Your task to perform on an android device: Go to eBay Image 0: 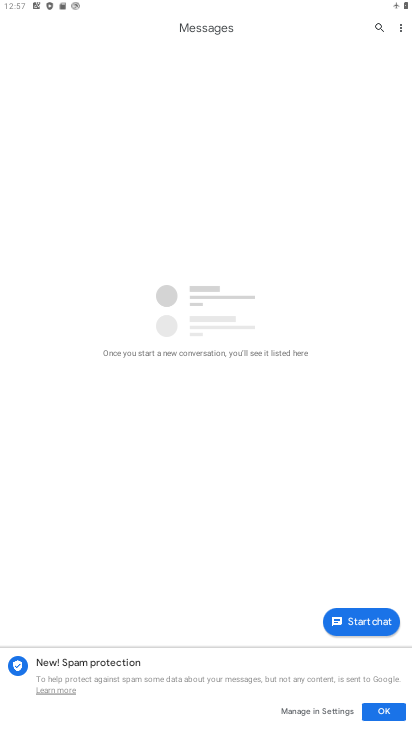
Step 0: press back button
Your task to perform on an android device: Go to eBay Image 1: 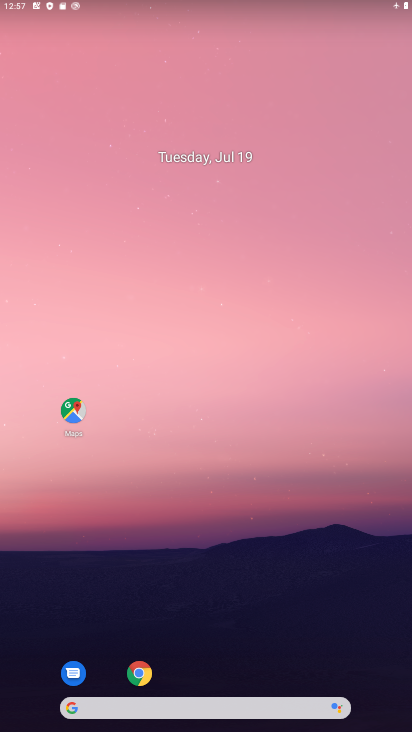
Step 1: press home button
Your task to perform on an android device: Go to eBay Image 2: 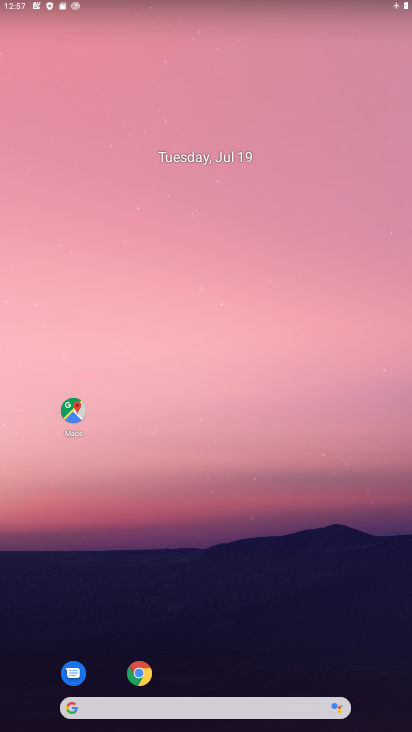
Step 2: drag from (223, 502) to (202, 406)
Your task to perform on an android device: Go to eBay Image 3: 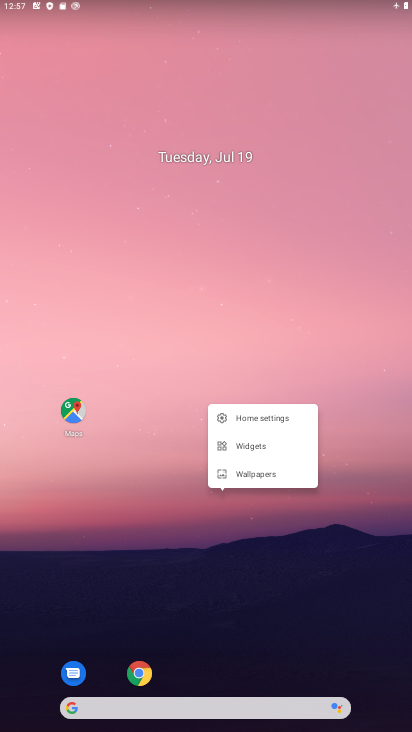
Step 3: drag from (264, 705) to (136, 230)
Your task to perform on an android device: Go to eBay Image 4: 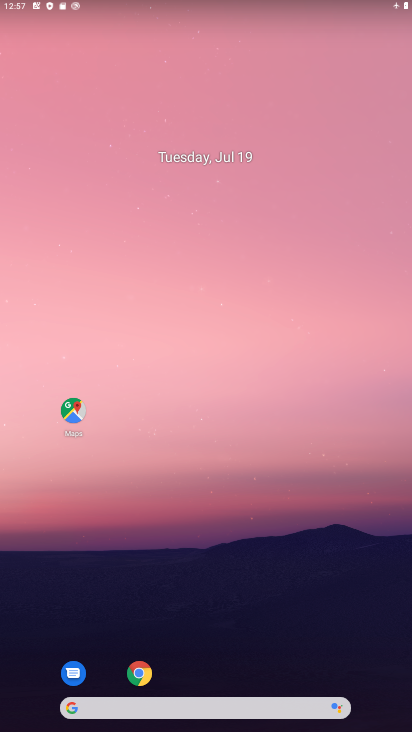
Step 4: drag from (231, 702) to (153, 297)
Your task to perform on an android device: Go to eBay Image 5: 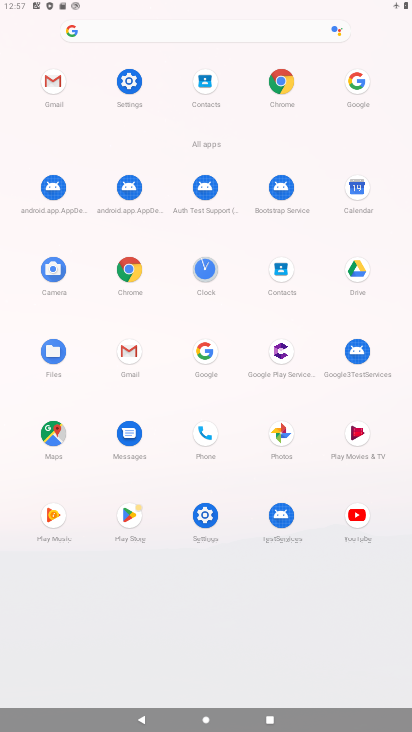
Step 5: drag from (232, 458) to (205, 285)
Your task to perform on an android device: Go to eBay Image 6: 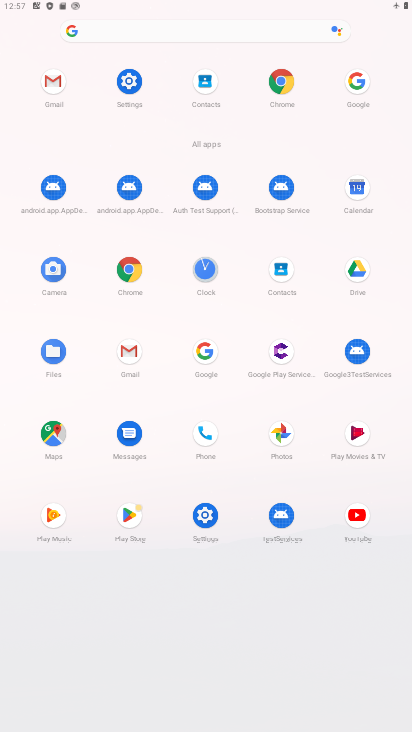
Step 6: click (274, 434)
Your task to perform on an android device: Go to eBay Image 7: 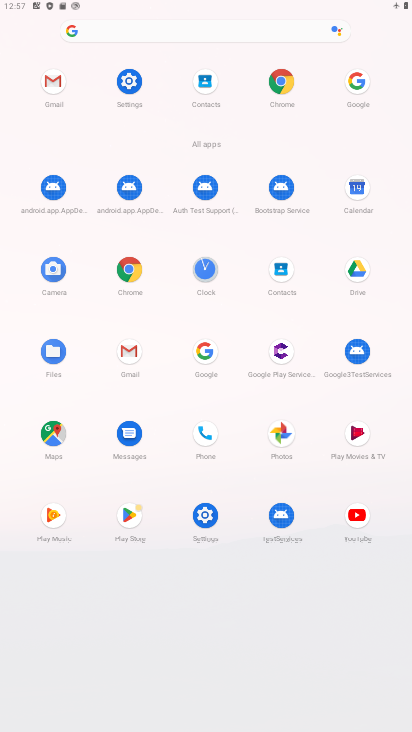
Step 7: click (278, 434)
Your task to perform on an android device: Go to eBay Image 8: 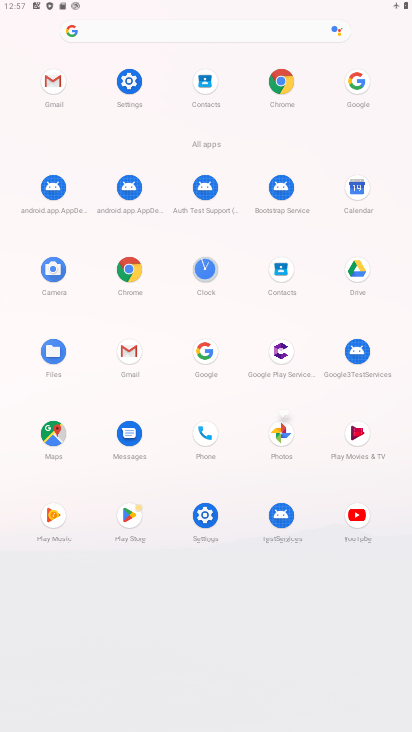
Step 8: click (279, 434)
Your task to perform on an android device: Go to eBay Image 9: 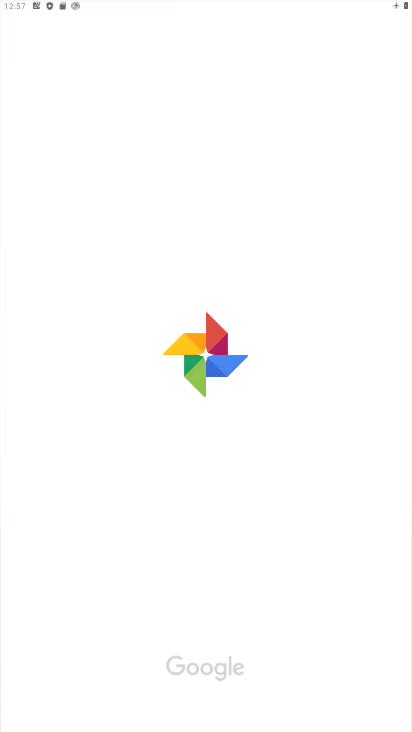
Step 9: click (279, 434)
Your task to perform on an android device: Go to eBay Image 10: 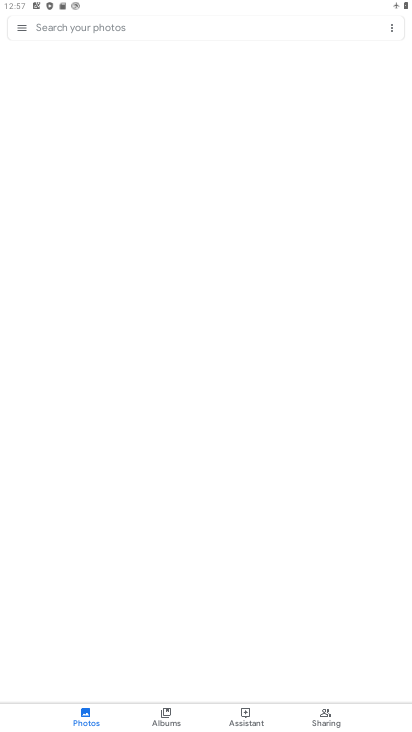
Step 10: click (279, 434)
Your task to perform on an android device: Go to eBay Image 11: 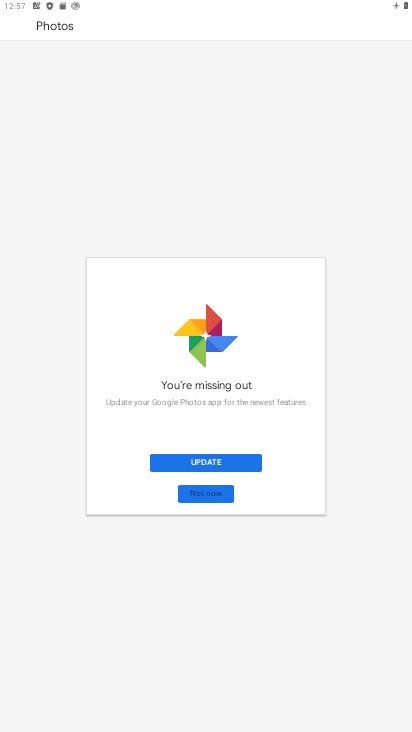
Step 11: click (214, 496)
Your task to perform on an android device: Go to eBay Image 12: 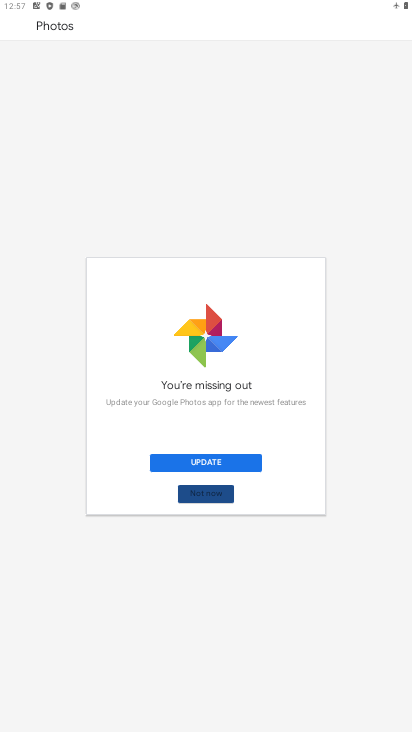
Step 12: click (214, 496)
Your task to perform on an android device: Go to eBay Image 13: 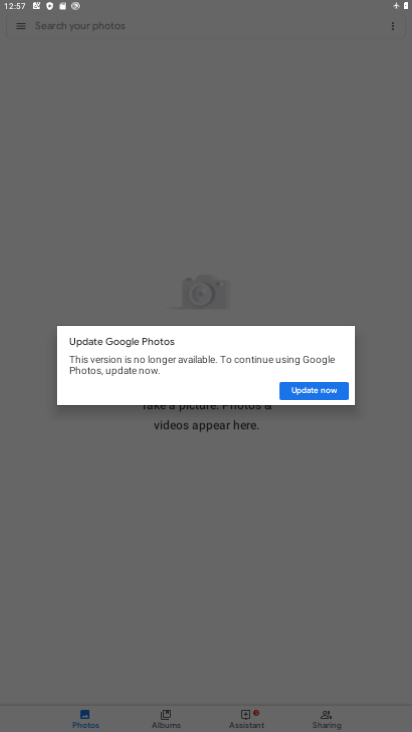
Step 13: click (214, 499)
Your task to perform on an android device: Go to eBay Image 14: 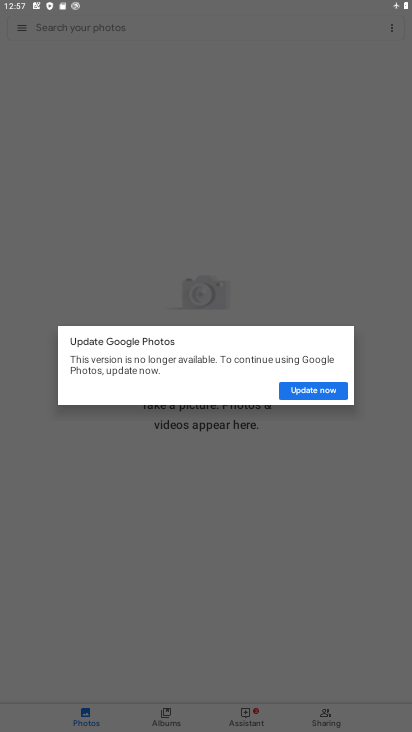
Step 14: click (119, 249)
Your task to perform on an android device: Go to eBay Image 15: 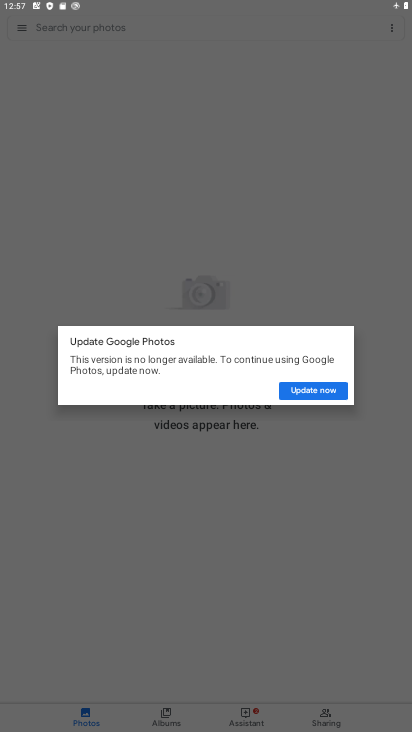
Step 15: click (223, 164)
Your task to perform on an android device: Go to eBay Image 16: 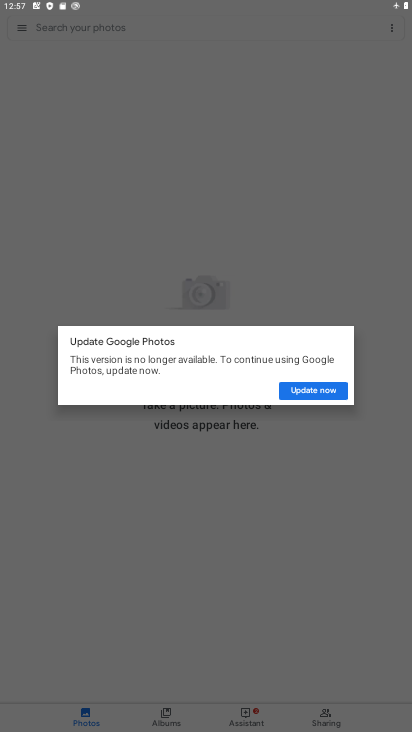
Step 16: press back button
Your task to perform on an android device: Go to eBay Image 17: 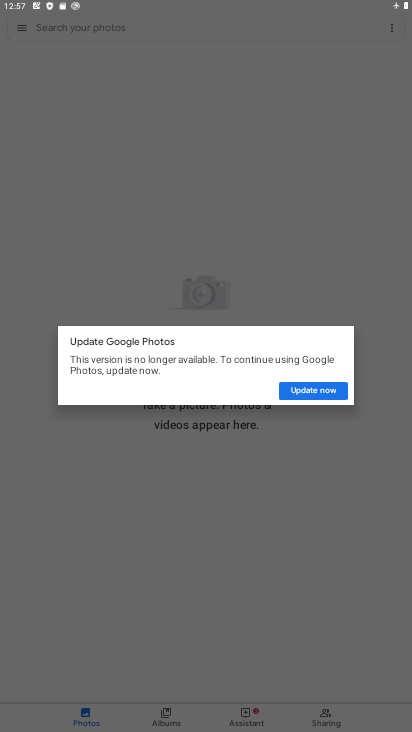
Step 17: press back button
Your task to perform on an android device: Go to eBay Image 18: 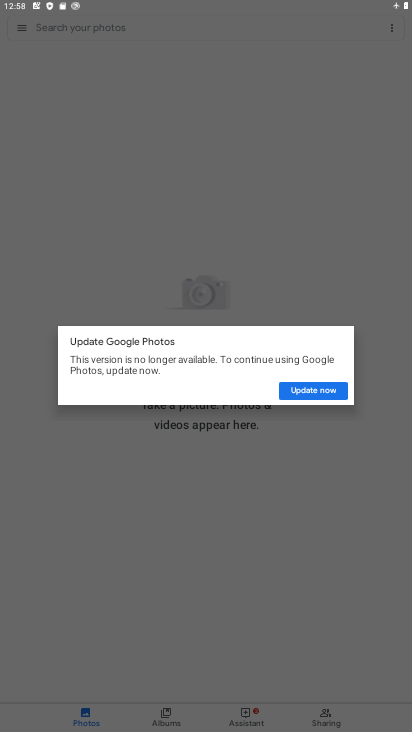
Step 18: click (322, 384)
Your task to perform on an android device: Go to eBay Image 19: 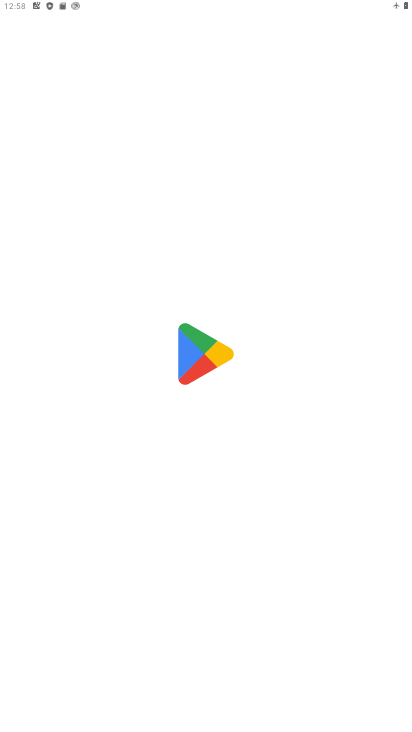
Step 19: press back button
Your task to perform on an android device: Go to eBay Image 20: 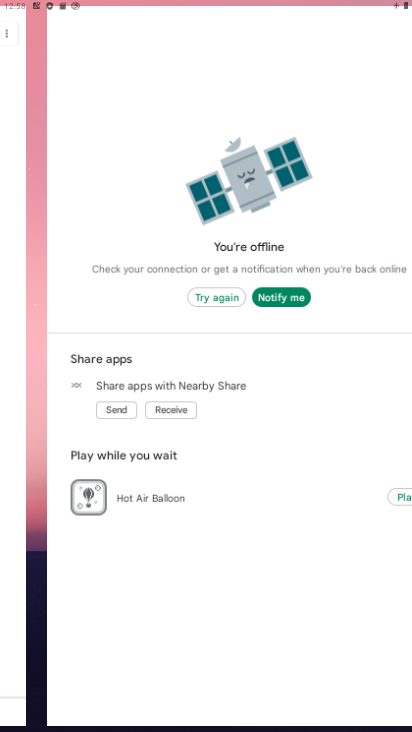
Step 20: press back button
Your task to perform on an android device: Go to eBay Image 21: 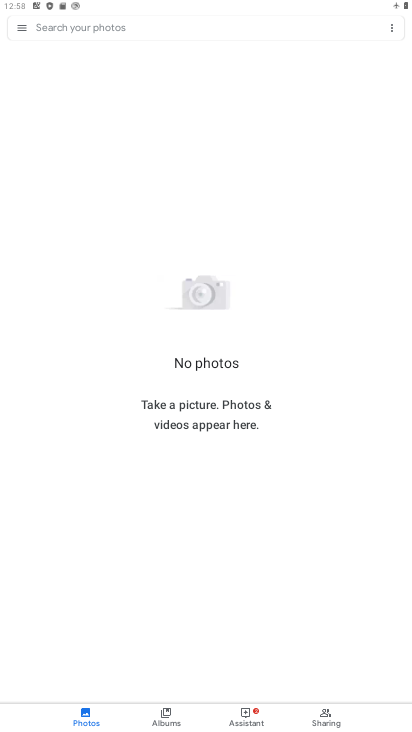
Step 21: press back button
Your task to perform on an android device: Go to eBay Image 22: 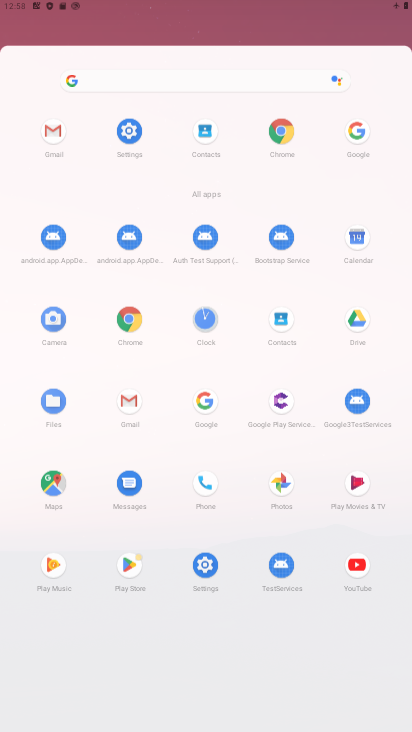
Step 22: press back button
Your task to perform on an android device: Go to eBay Image 23: 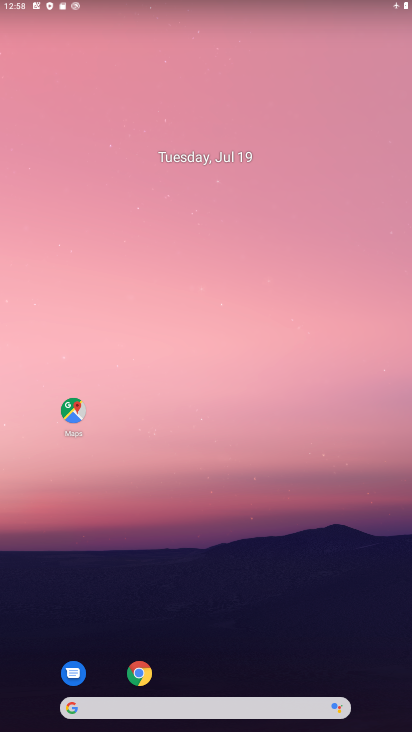
Step 23: drag from (278, 616) to (143, 110)
Your task to perform on an android device: Go to eBay Image 24: 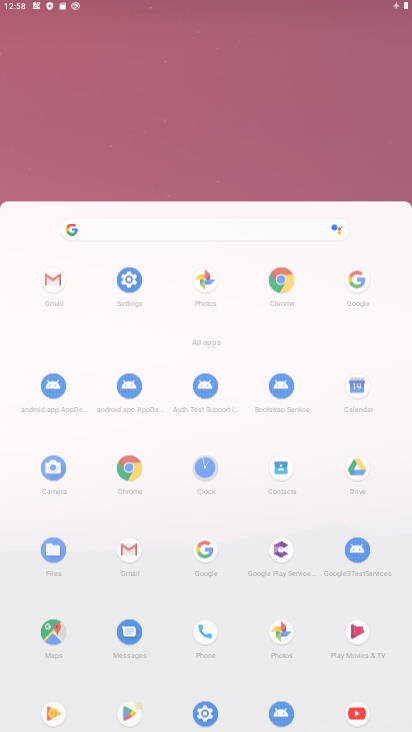
Step 24: drag from (181, 488) to (59, 105)
Your task to perform on an android device: Go to eBay Image 25: 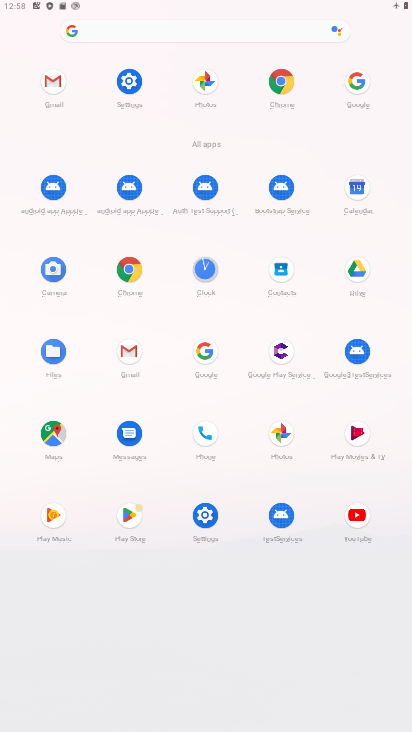
Step 25: click (282, 78)
Your task to perform on an android device: Go to eBay Image 26: 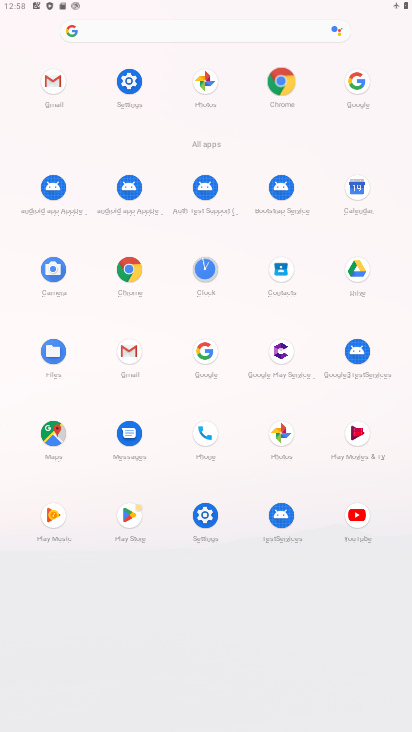
Step 26: click (283, 79)
Your task to perform on an android device: Go to eBay Image 27: 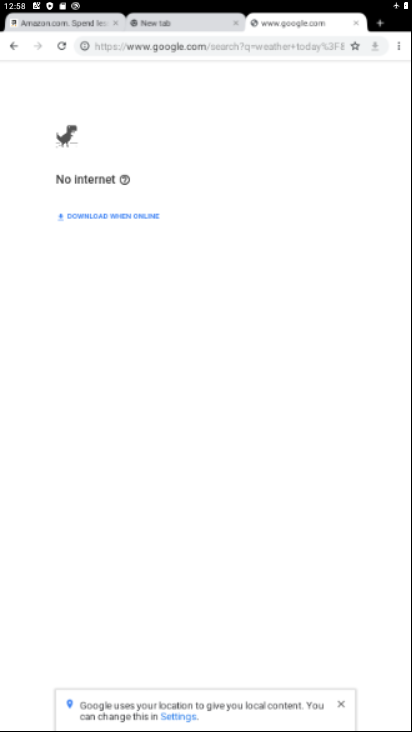
Step 27: click (283, 79)
Your task to perform on an android device: Go to eBay Image 28: 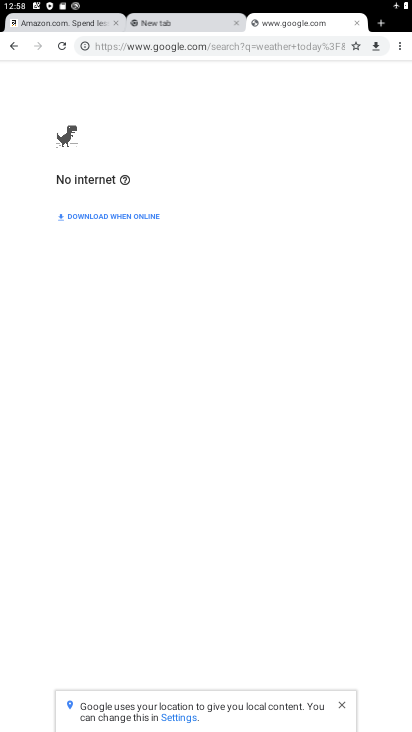
Step 28: task complete